Your task to perform on an android device: Open my contact list Image 0: 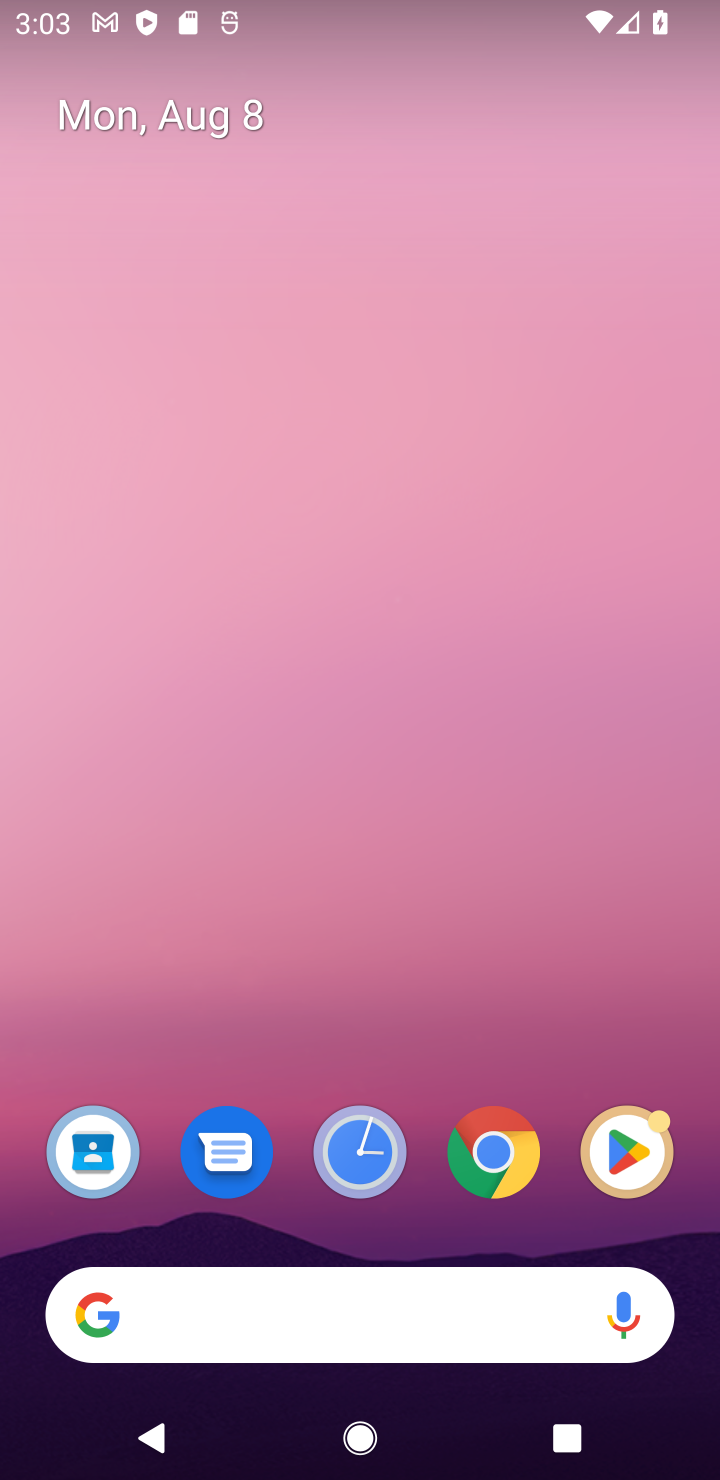
Step 0: drag from (325, 1224) to (361, 50)
Your task to perform on an android device: Open my contact list Image 1: 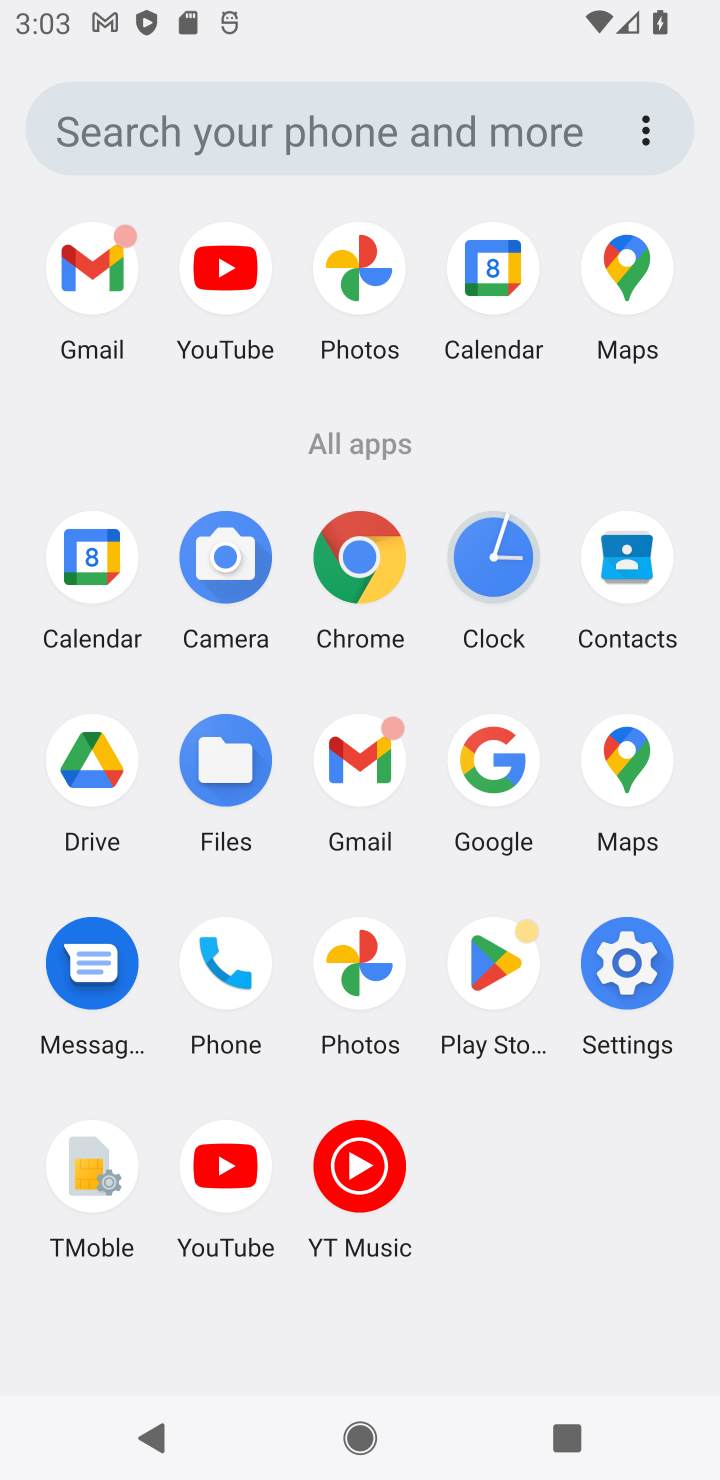
Step 1: click (629, 583)
Your task to perform on an android device: Open my contact list Image 2: 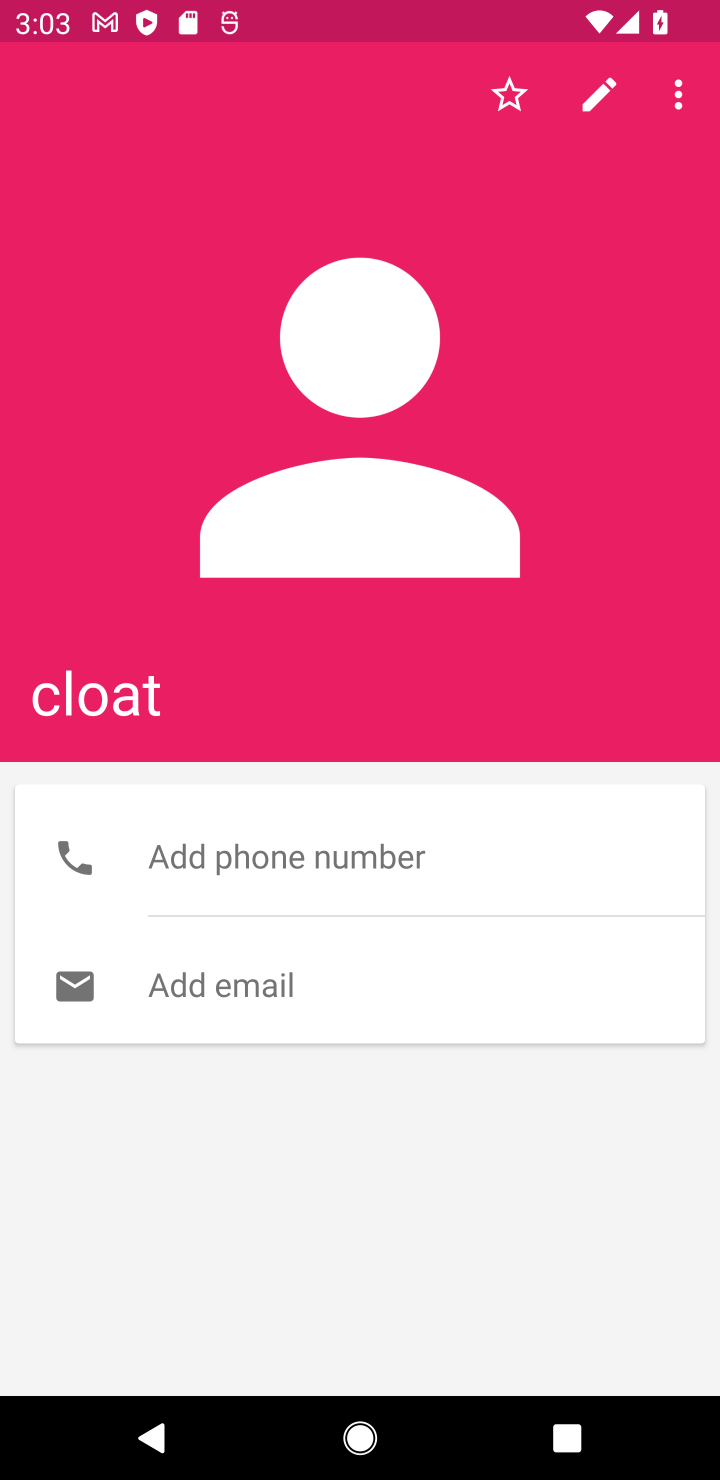
Step 2: task complete